Your task to perform on an android device: What's on my calendar today? Image 0: 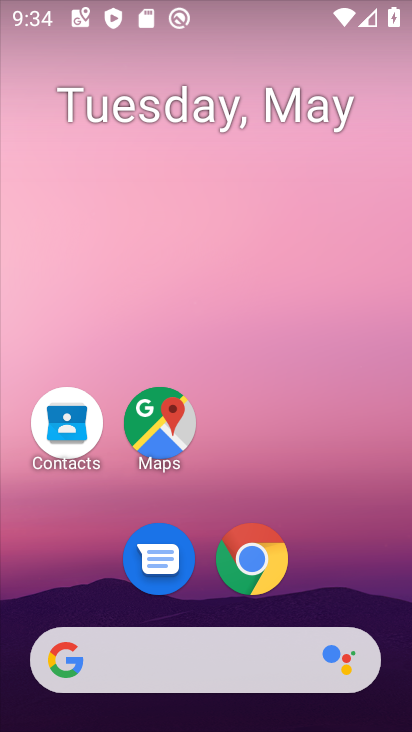
Step 0: drag from (352, 575) to (355, 37)
Your task to perform on an android device: What's on my calendar today? Image 1: 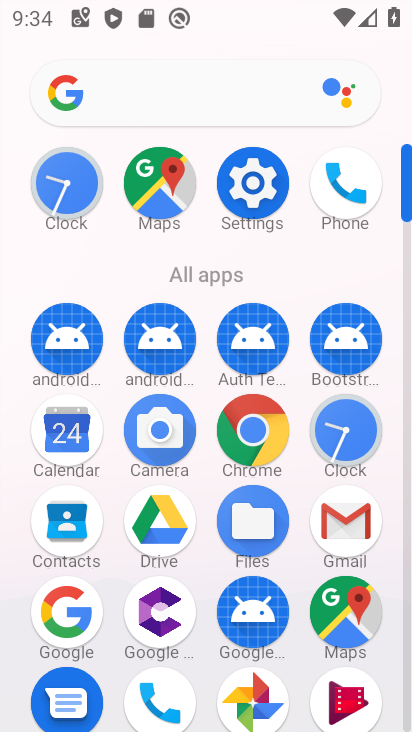
Step 1: click (80, 421)
Your task to perform on an android device: What's on my calendar today? Image 2: 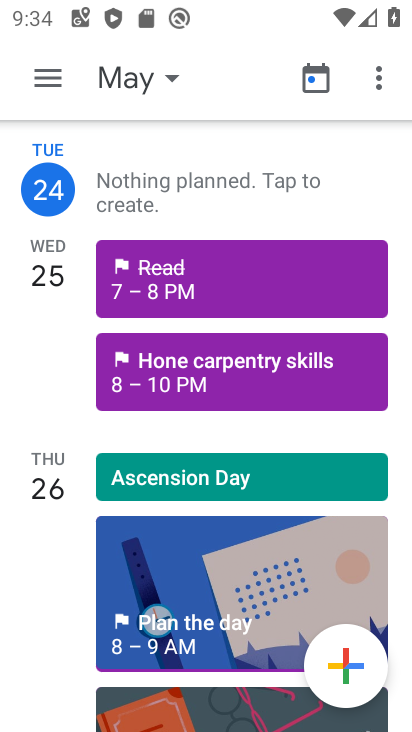
Step 2: task complete